Your task to perform on an android device: open app "Pinterest" (install if not already installed) Image 0: 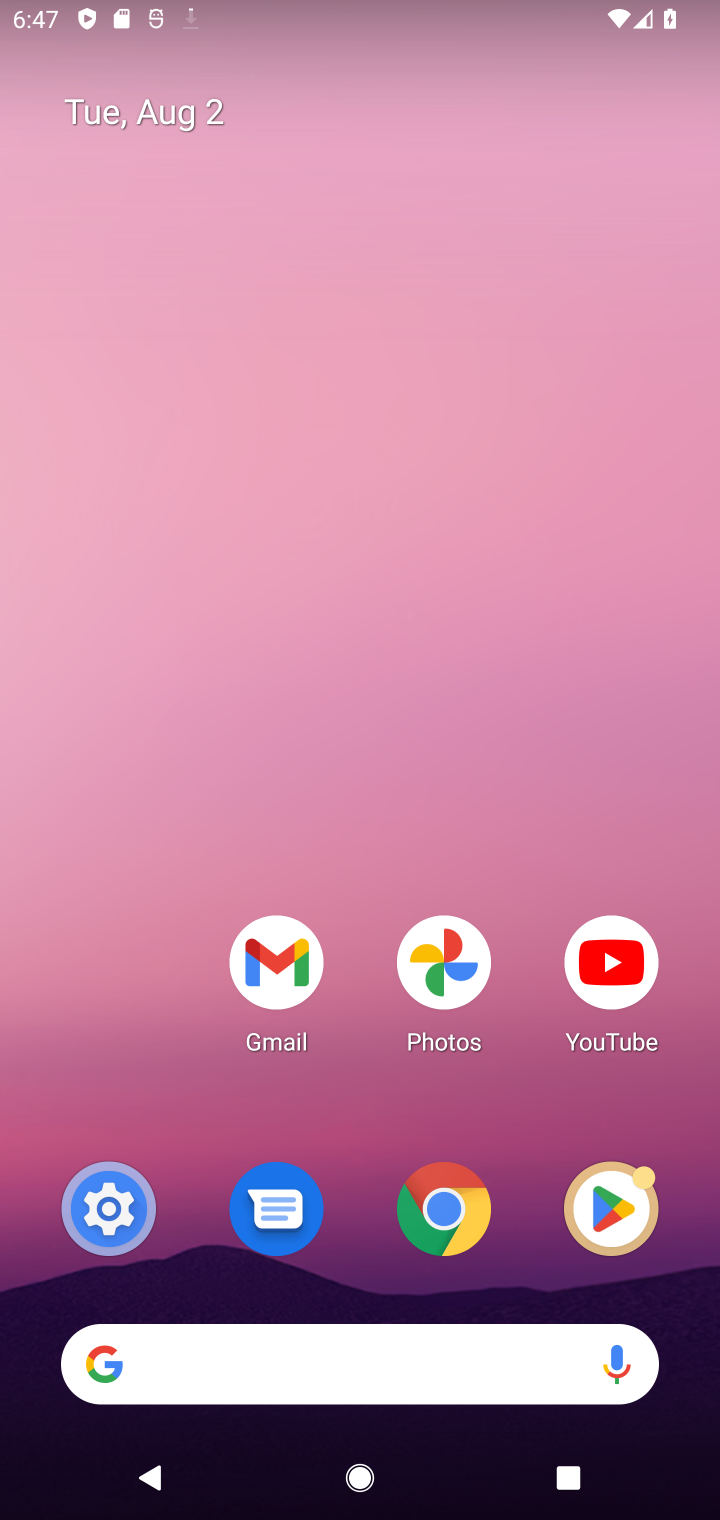
Step 0: drag from (384, 1018) to (355, 220)
Your task to perform on an android device: open app "Pinterest" (install if not already installed) Image 1: 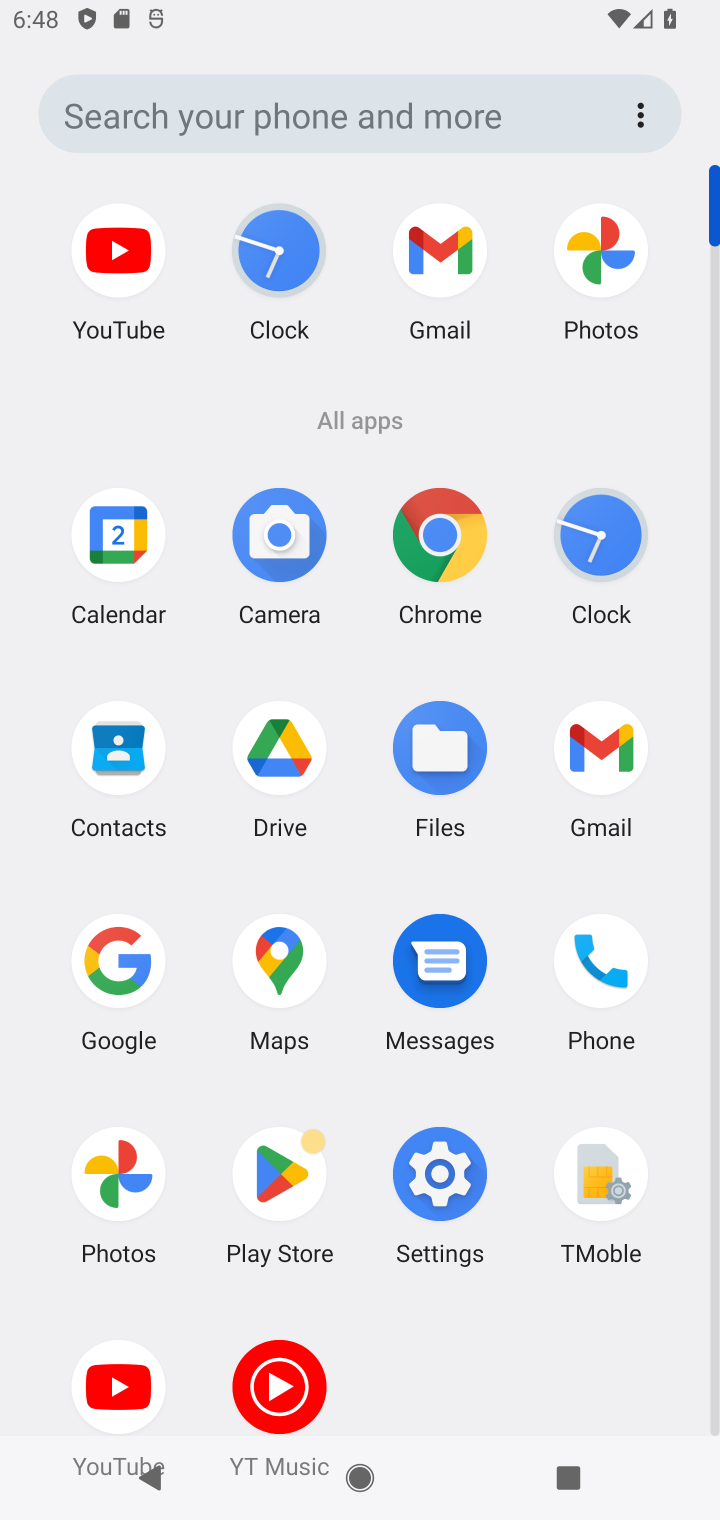
Step 1: click (268, 1170)
Your task to perform on an android device: open app "Pinterest" (install if not already installed) Image 2: 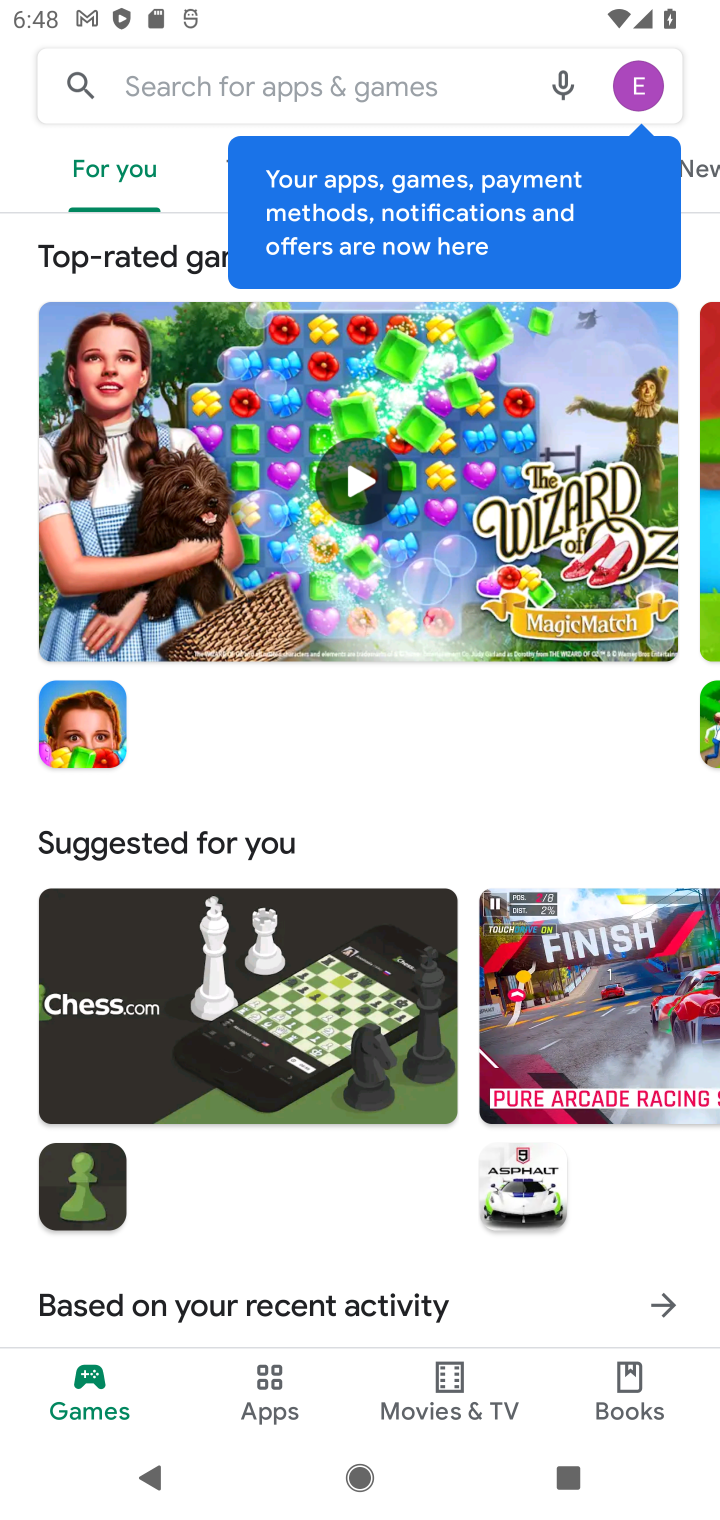
Step 2: click (238, 90)
Your task to perform on an android device: open app "Pinterest" (install if not already installed) Image 3: 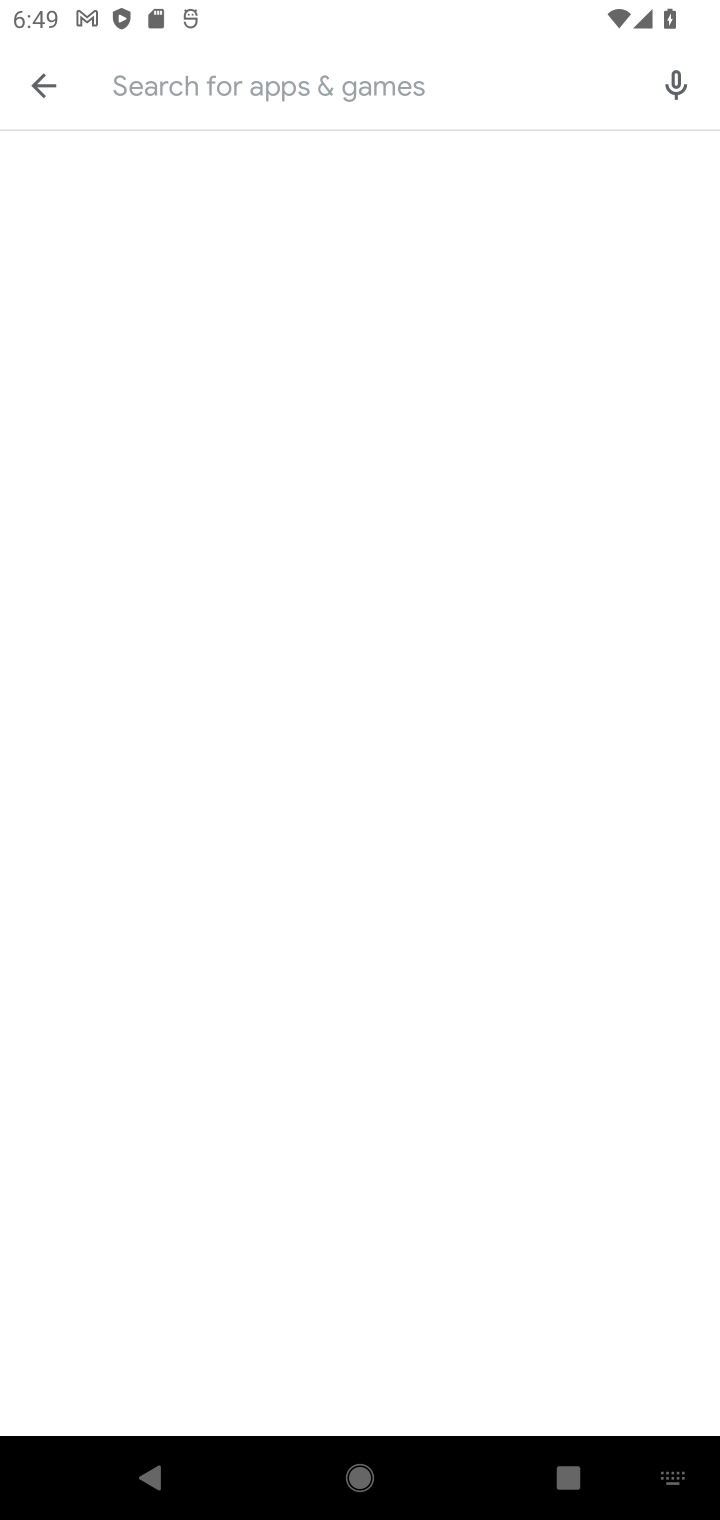
Step 3: type "Pinterest"
Your task to perform on an android device: open app "Pinterest" (install if not already installed) Image 4: 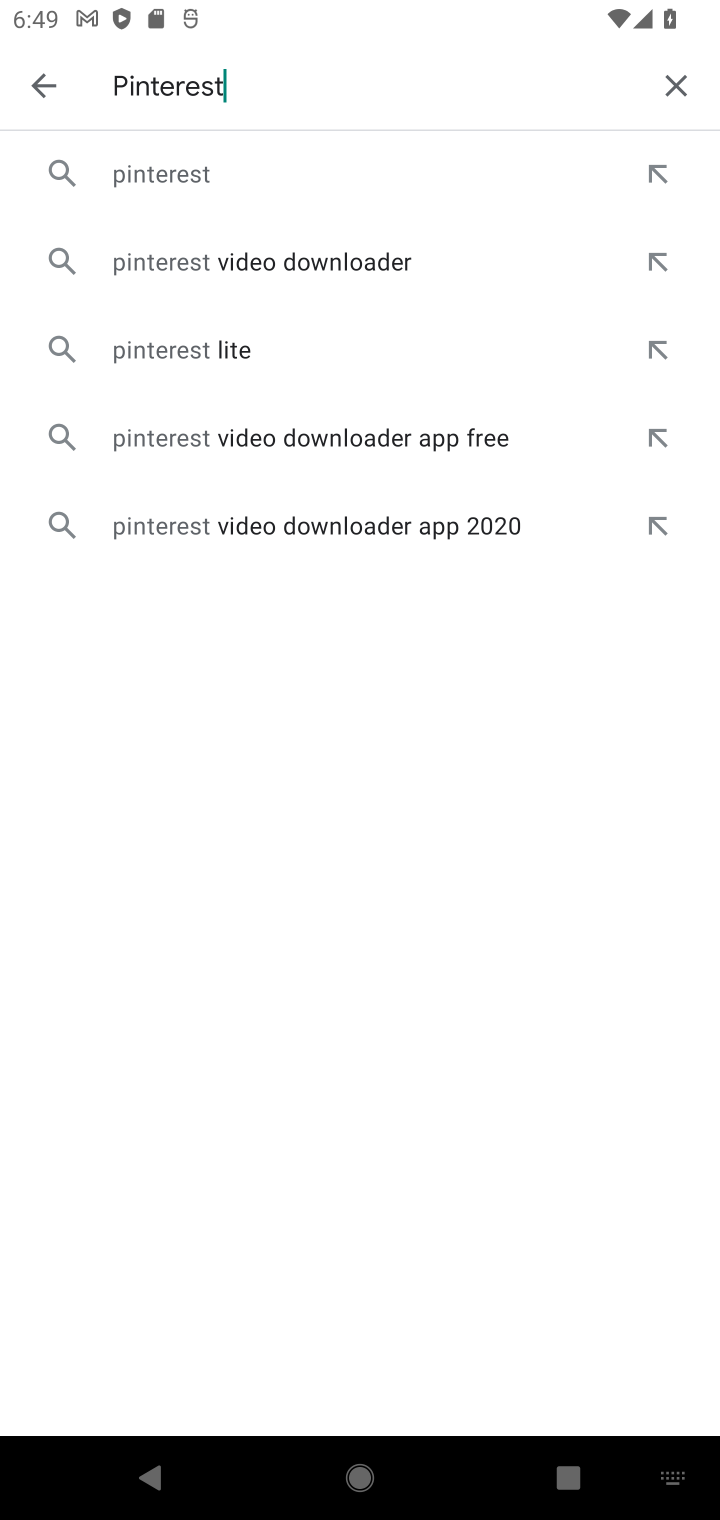
Step 4: click (144, 184)
Your task to perform on an android device: open app "Pinterest" (install if not already installed) Image 5: 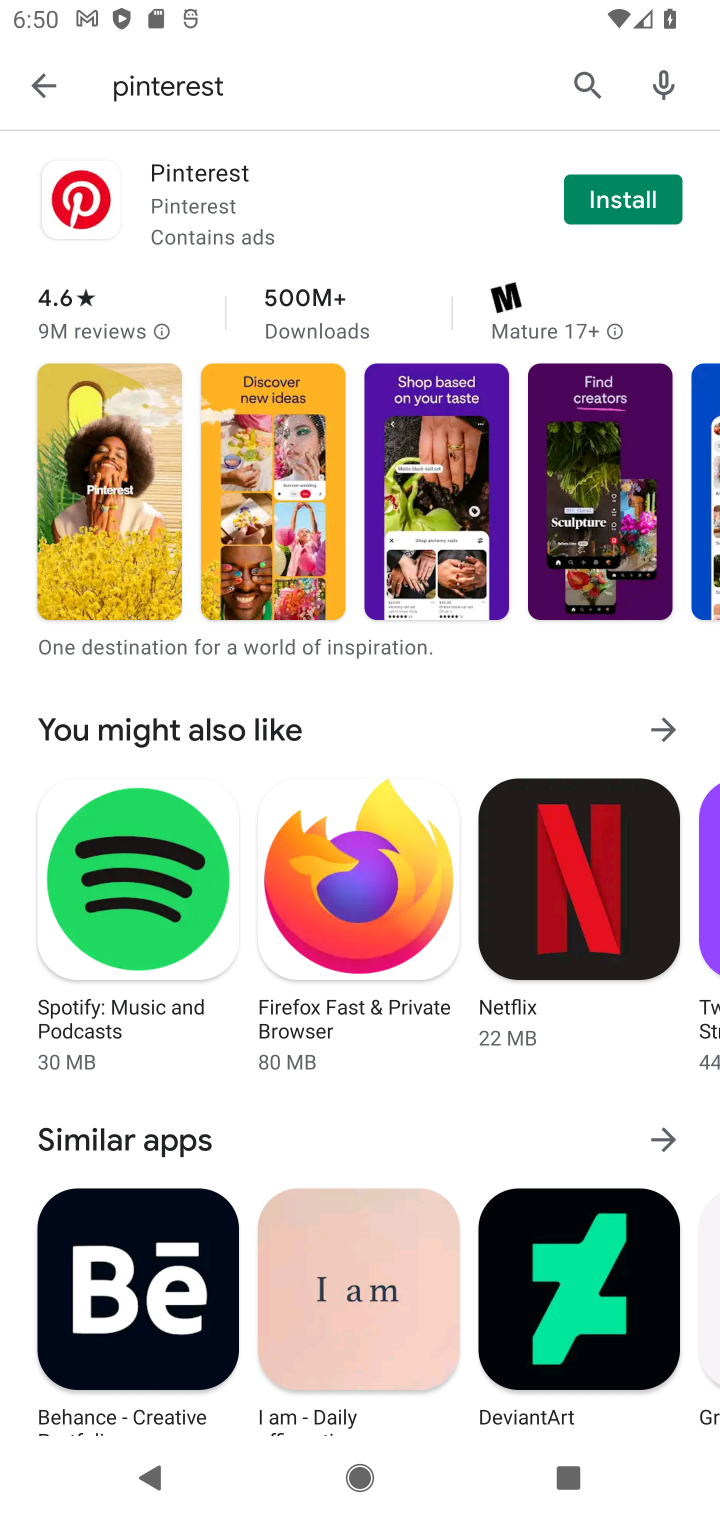
Step 5: click (637, 193)
Your task to perform on an android device: open app "Pinterest" (install if not already installed) Image 6: 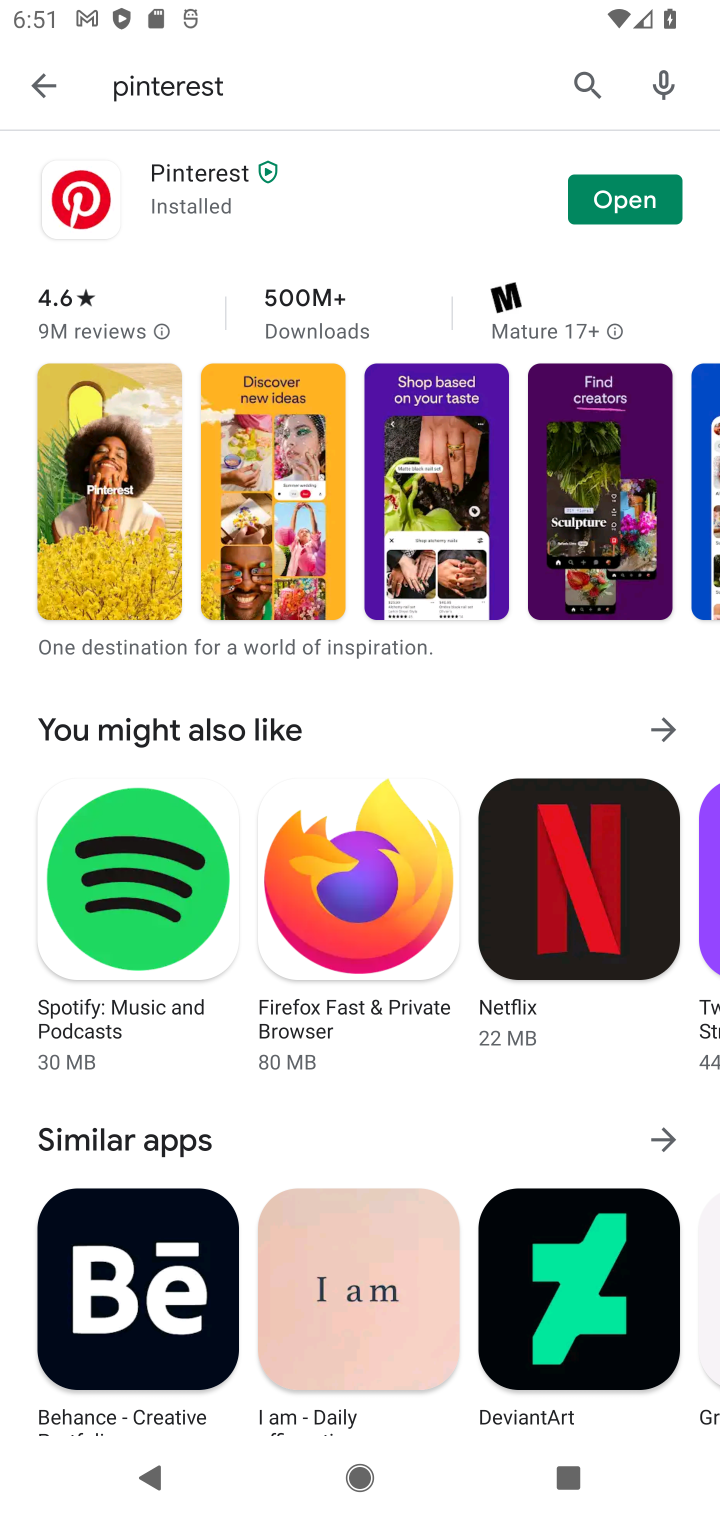
Step 6: task complete